Your task to perform on an android device: toggle notifications settings in the gmail app Image 0: 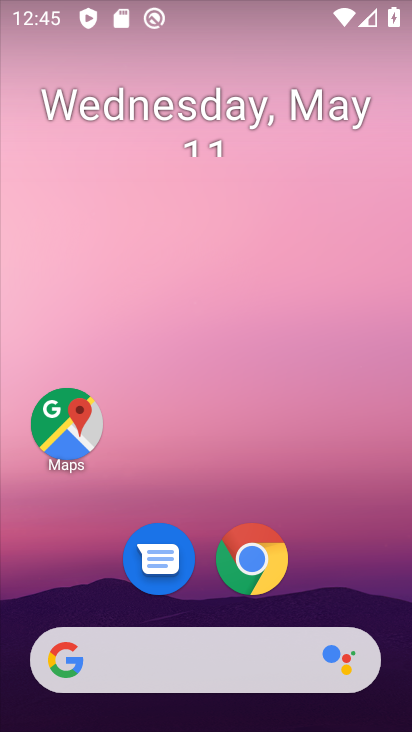
Step 0: drag from (205, 584) to (216, 160)
Your task to perform on an android device: toggle notifications settings in the gmail app Image 1: 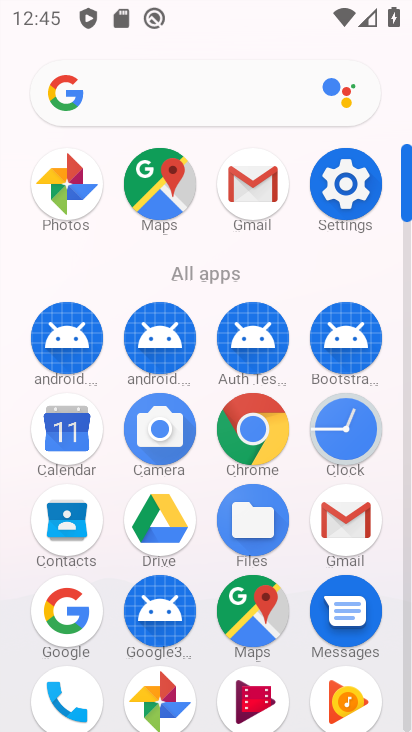
Step 1: click (244, 186)
Your task to perform on an android device: toggle notifications settings in the gmail app Image 2: 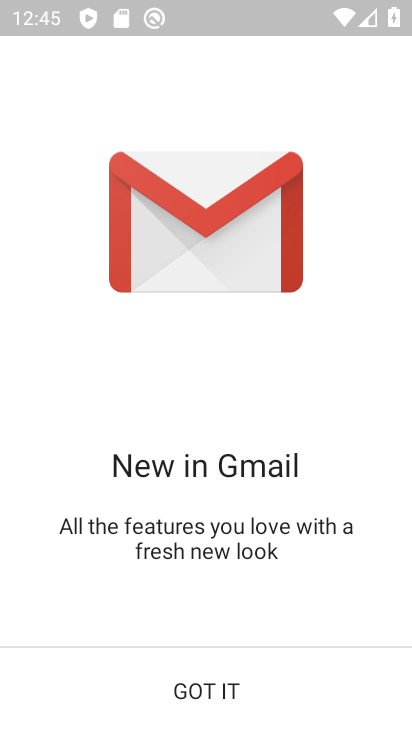
Step 2: click (218, 714)
Your task to perform on an android device: toggle notifications settings in the gmail app Image 3: 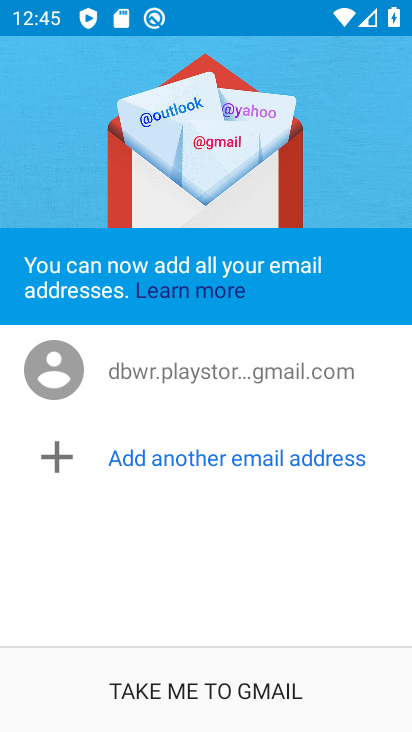
Step 3: click (213, 700)
Your task to perform on an android device: toggle notifications settings in the gmail app Image 4: 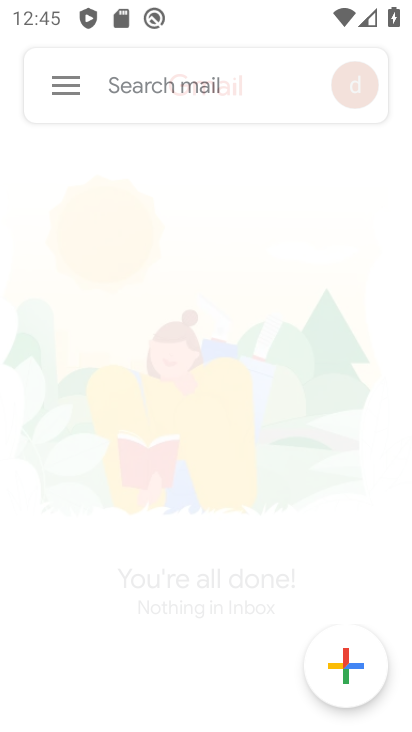
Step 4: click (71, 81)
Your task to perform on an android device: toggle notifications settings in the gmail app Image 5: 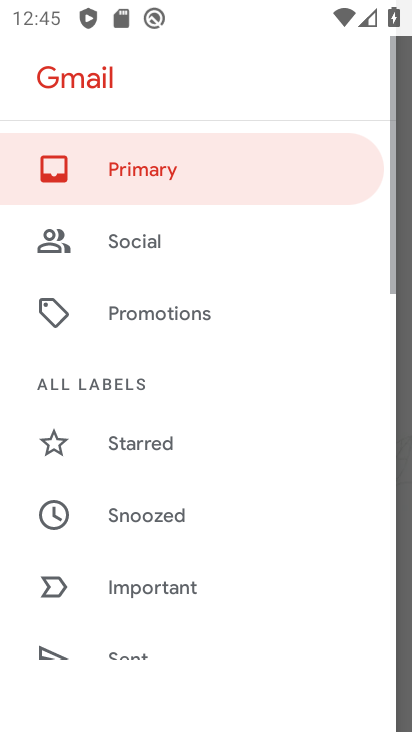
Step 5: drag from (186, 644) to (207, 78)
Your task to perform on an android device: toggle notifications settings in the gmail app Image 6: 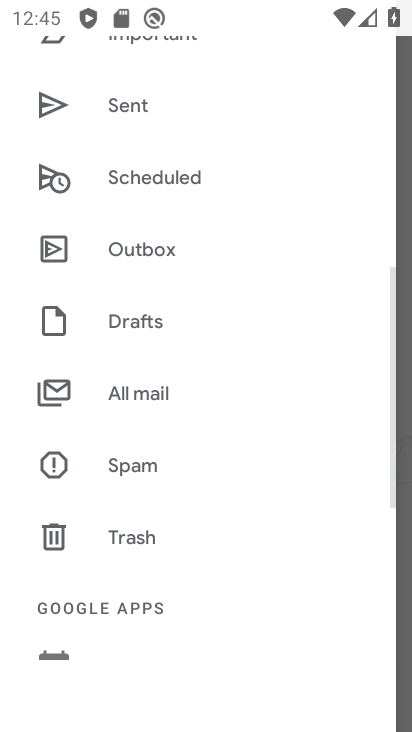
Step 6: drag from (175, 579) to (201, 145)
Your task to perform on an android device: toggle notifications settings in the gmail app Image 7: 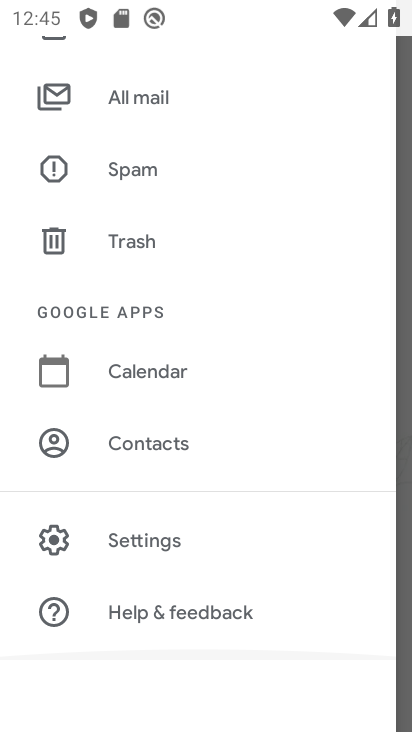
Step 7: click (138, 546)
Your task to perform on an android device: toggle notifications settings in the gmail app Image 8: 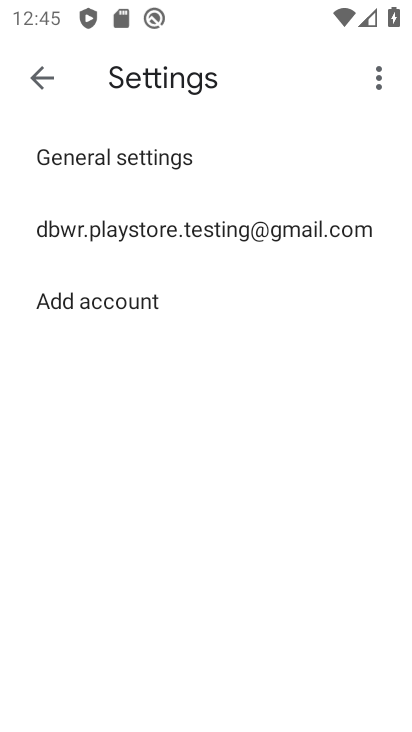
Step 8: click (153, 226)
Your task to perform on an android device: toggle notifications settings in the gmail app Image 9: 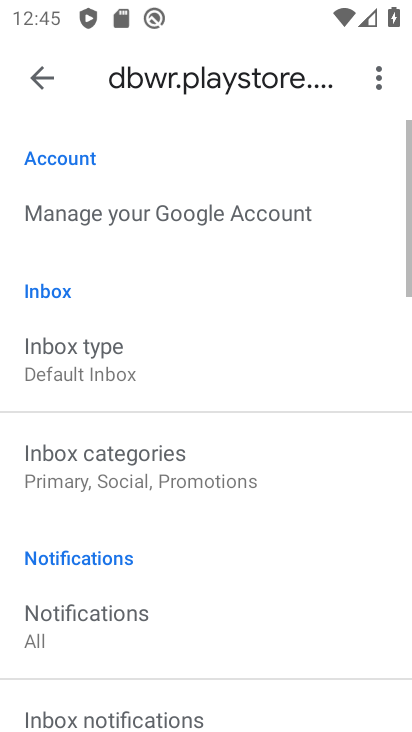
Step 9: drag from (205, 534) to (189, 163)
Your task to perform on an android device: toggle notifications settings in the gmail app Image 10: 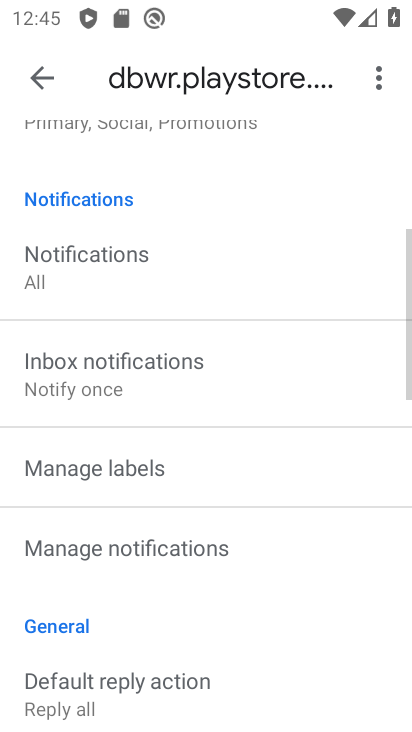
Step 10: click (203, 564)
Your task to perform on an android device: toggle notifications settings in the gmail app Image 11: 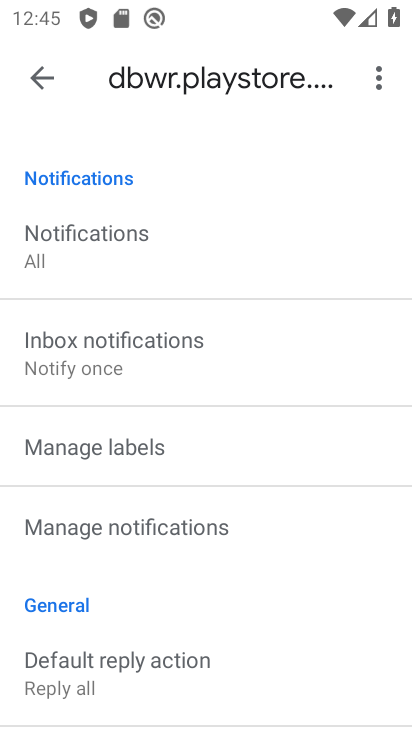
Step 11: click (84, 268)
Your task to perform on an android device: toggle notifications settings in the gmail app Image 12: 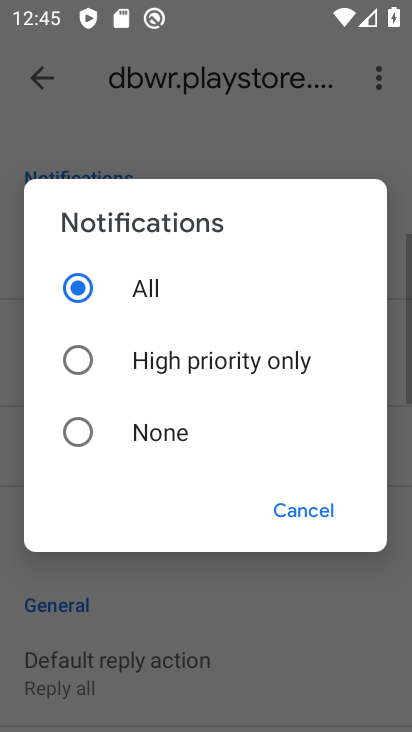
Step 12: click (78, 426)
Your task to perform on an android device: toggle notifications settings in the gmail app Image 13: 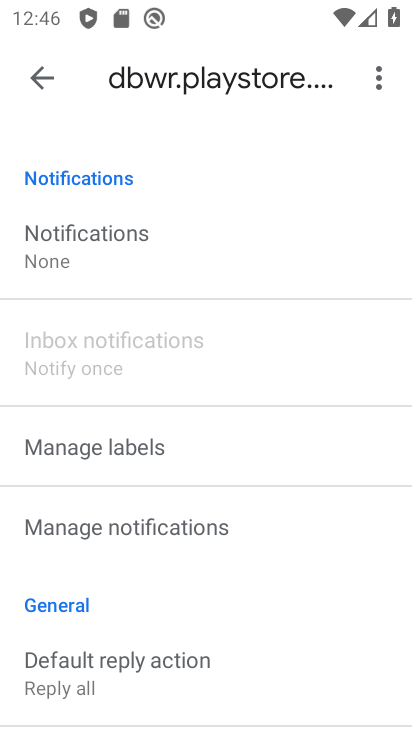
Step 13: task complete